Your task to perform on an android device: turn on sleep mode Image 0: 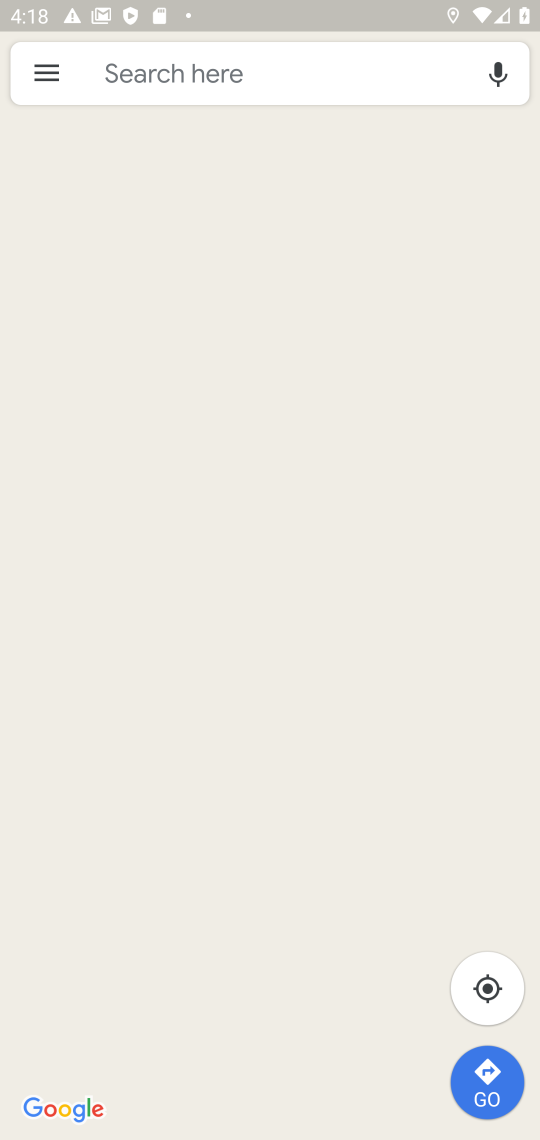
Step 0: press home button
Your task to perform on an android device: turn on sleep mode Image 1: 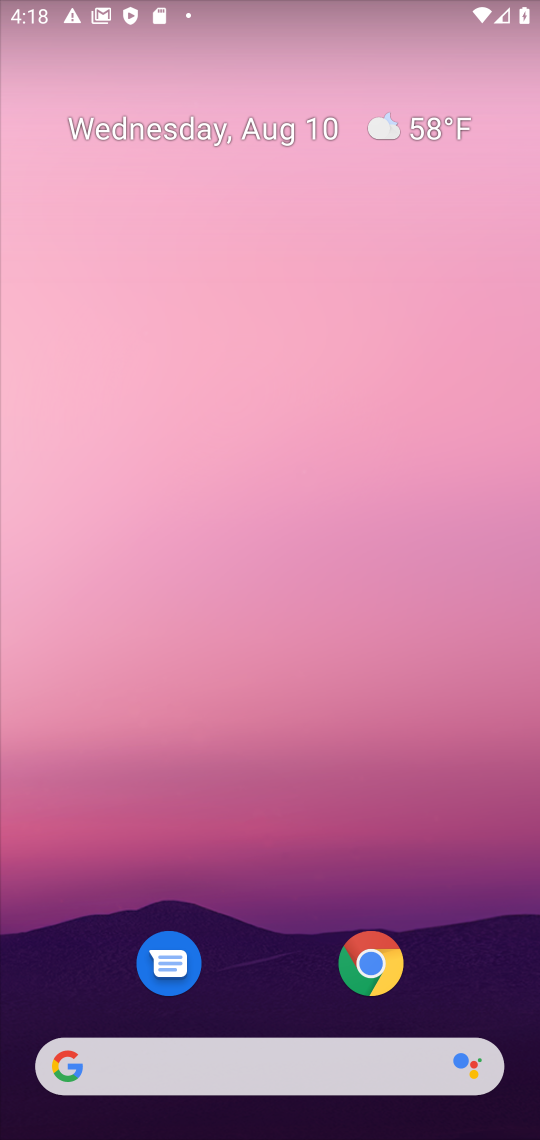
Step 1: drag from (248, 966) to (266, 52)
Your task to perform on an android device: turn on sleep mode Image 2: 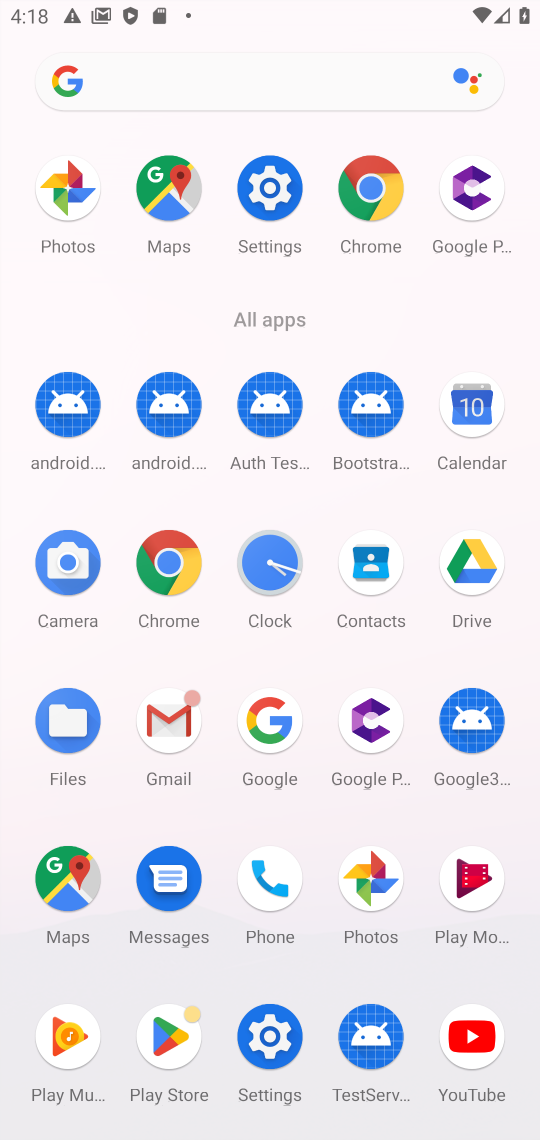
Step 2: click (267, 1043)
Your task to perform on an android device: turn on sleep mode Image 3: 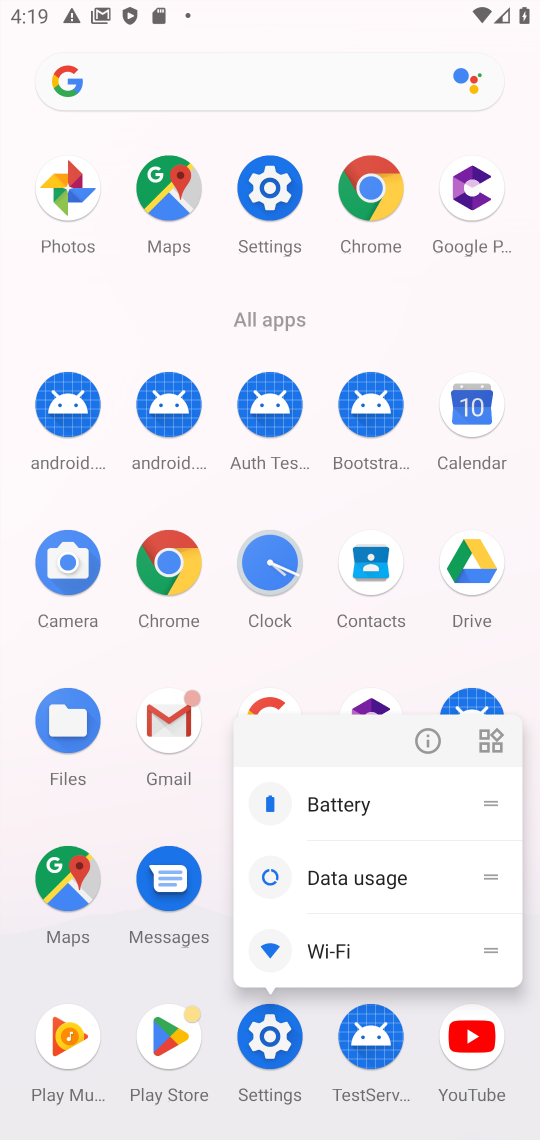
Step 3: click (268, 1025)
Your task to perform on an android device: turn on sleep mode Image 4: 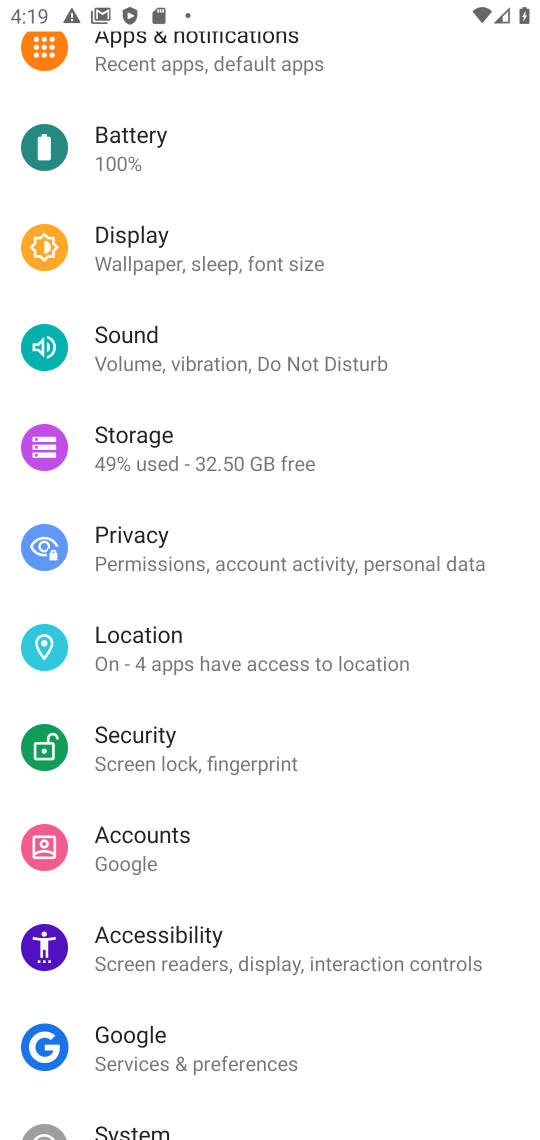
Step 4: drag from (236, 193) to (218, 673)
Your task to perform on an android device: turn on sleep mode Image 5: 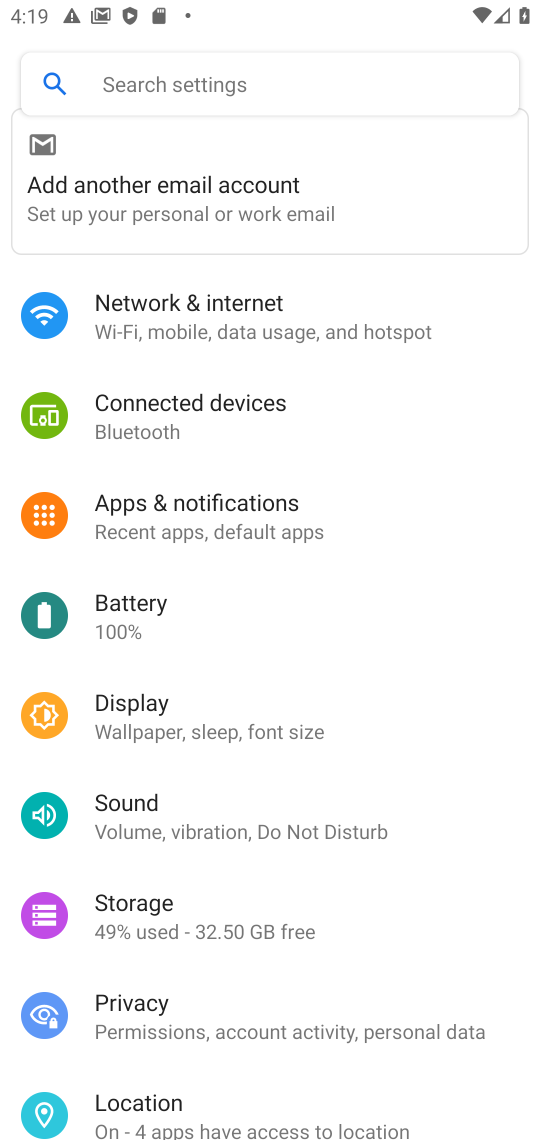
Step 5: click (173, 700)
Your task to perform on an android device: turn on sleep mode Image 6: 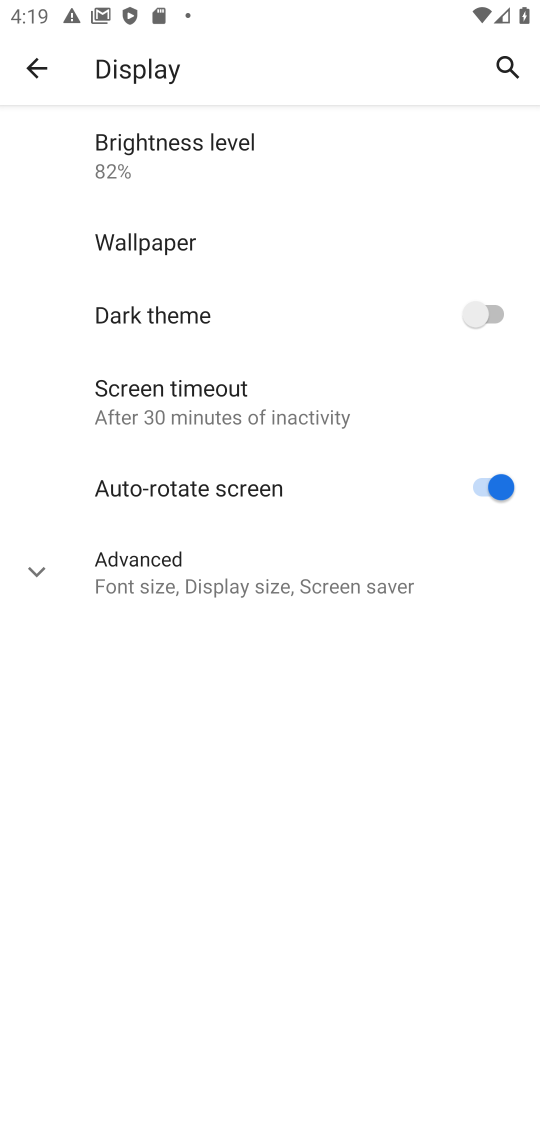
Step 6: click (186, 381)
Your task to perform on an android device: turn on sleep mode Image 7: 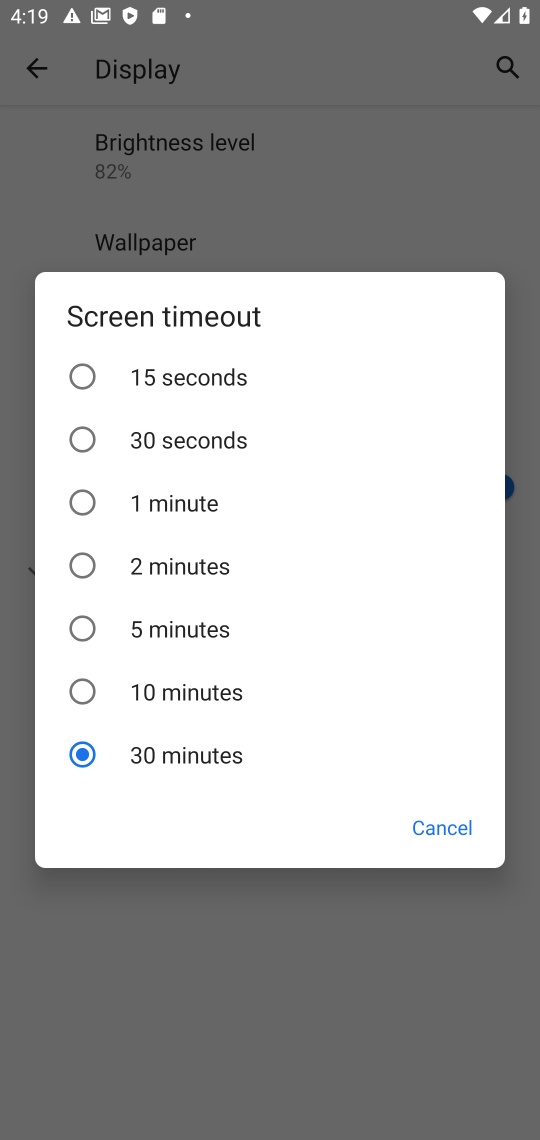
Step 7: task complete